Your task to perform on an android device: turn off location Image 0: 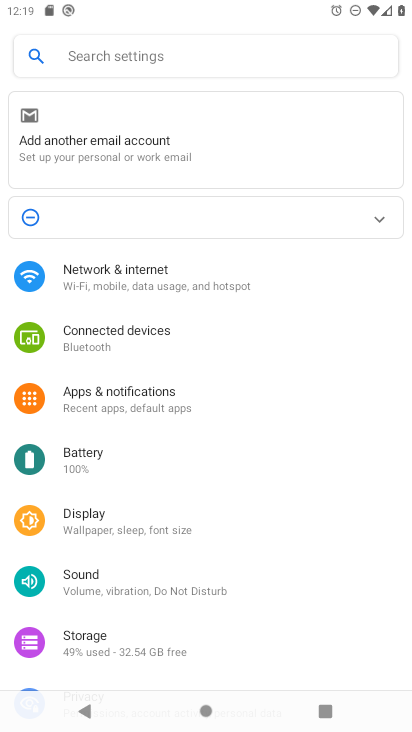
Step 0: press home button
Your task to perform on an android device: turn off location Image 1: 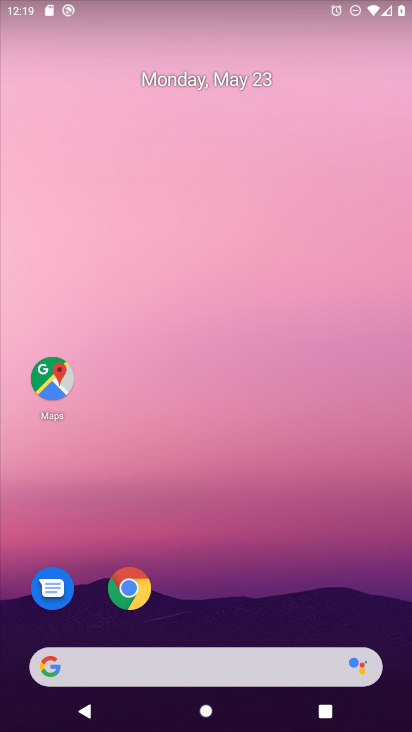
Step 1: drag from (250, 688) to (187, 175)
Your task to perform on an android device: turn off location Image 2: 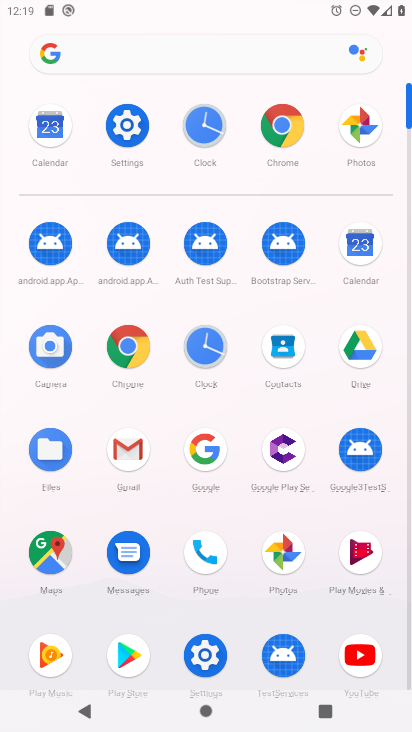
Step 2: click (124, 135)
Your task to perform on an android device: turn off location Image 3: 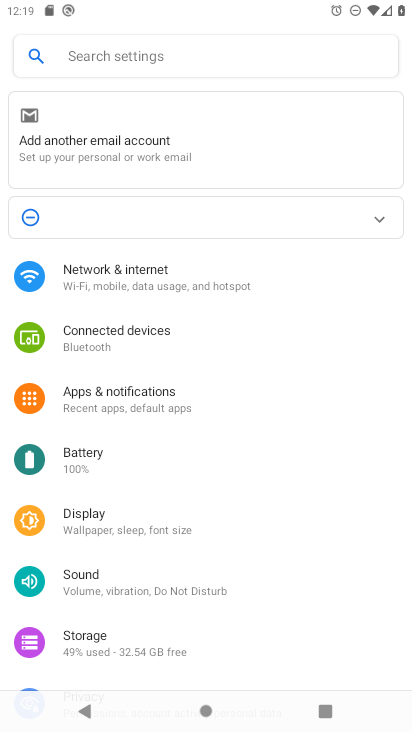
Step 3: click (116, 59)
Your task to perform on an android device: turn off location Image 4: 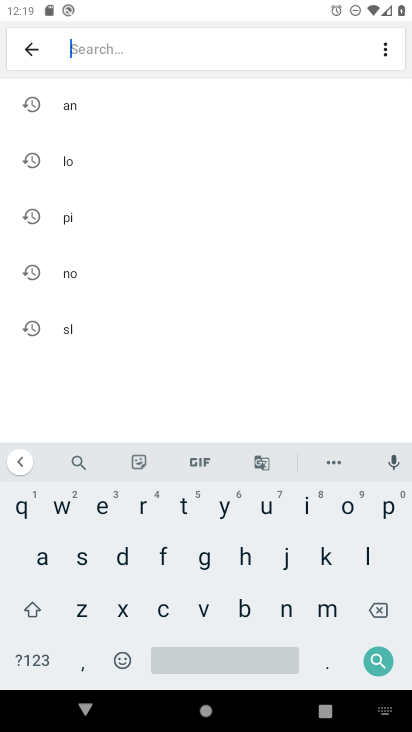
Step 4: click (95, 161)
Your task to perform on an android device: turn off location Image 5: 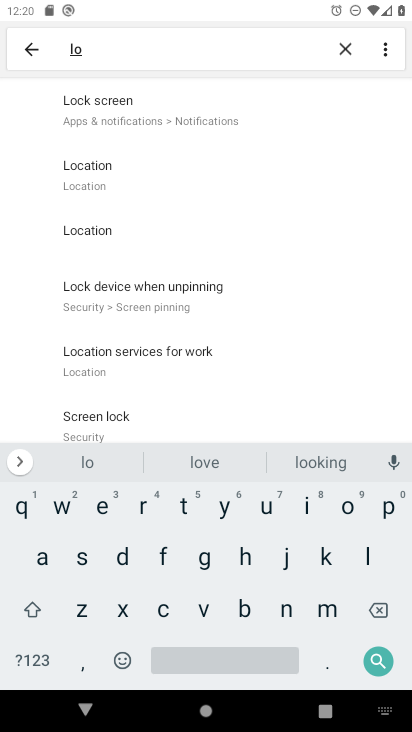
Step 5: click (93, 179)
Your task to perform on an android device: turn off location Image 6: 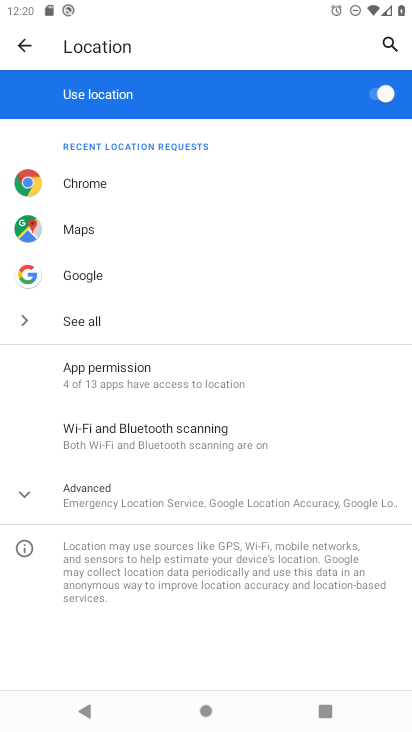
Step 6: click (387, 88)
Your task to perform on an android device: turn off location Image 7: 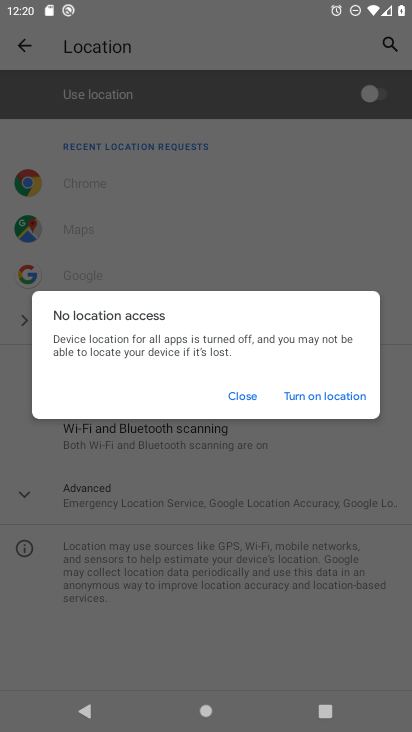
Step 7: click (332, 390)
Your task to perform on an android device: turn off location Image 8: 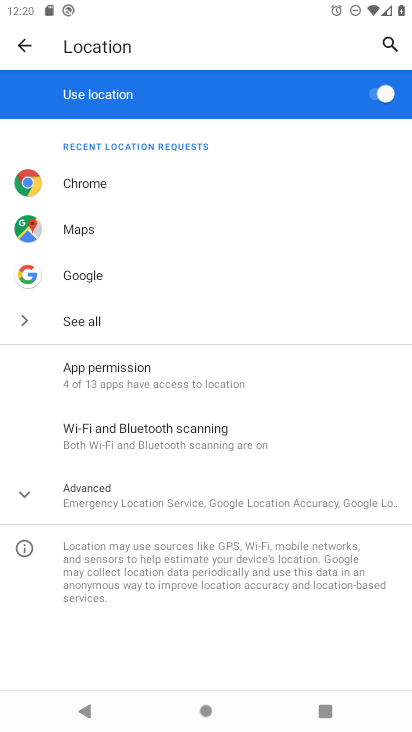
Step 8: task complete